Your task to perform on an android device: toggle sleep mode Image 0: 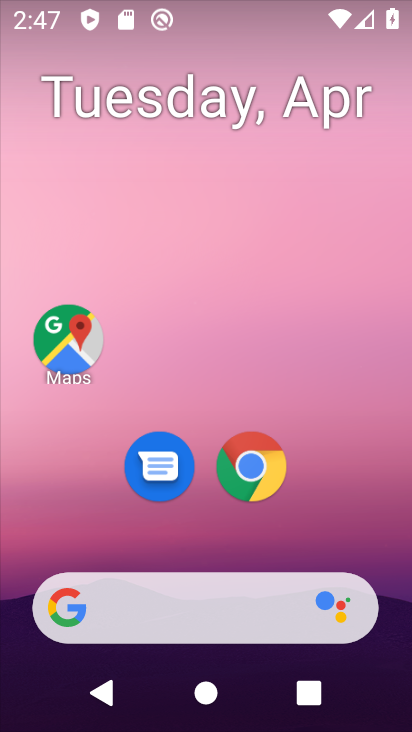
Step 0: drag from (217, 557) to (137, 14)
Your task to perform on an android device: toggle sleep mode Image 1: 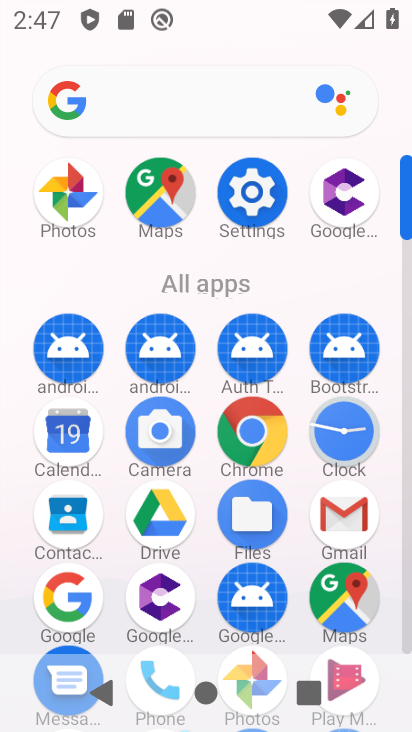
Step 1: click (233, 210)
Your task to perform on an android device: toggle sleep mode Image 2: 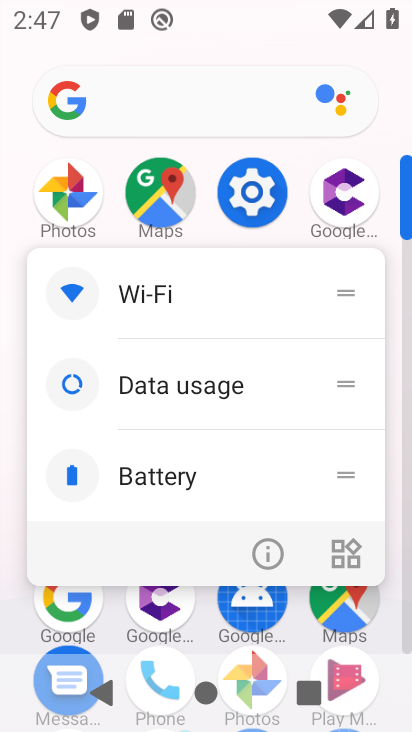
Step 2: click (240, 196)
Your task to perform on an android device: toggle sleep mode Image 3: 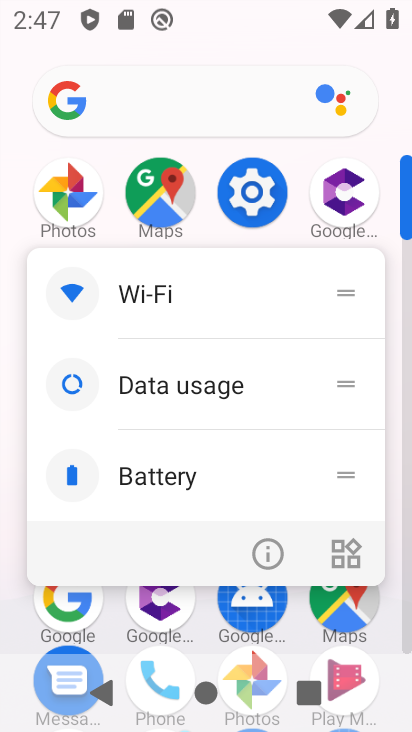
Step 3: click (240, 196)
Your task to perform on an android device: toggle sleep mode Image 4: 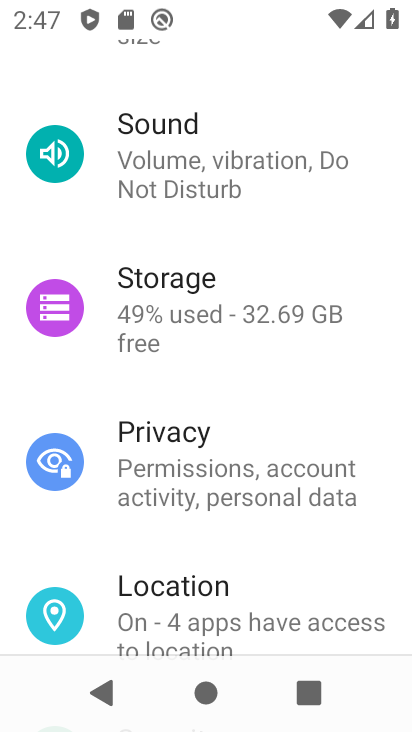
Step 4: task complete